Your task to perform on an android device: all mails in gmail Image 0: 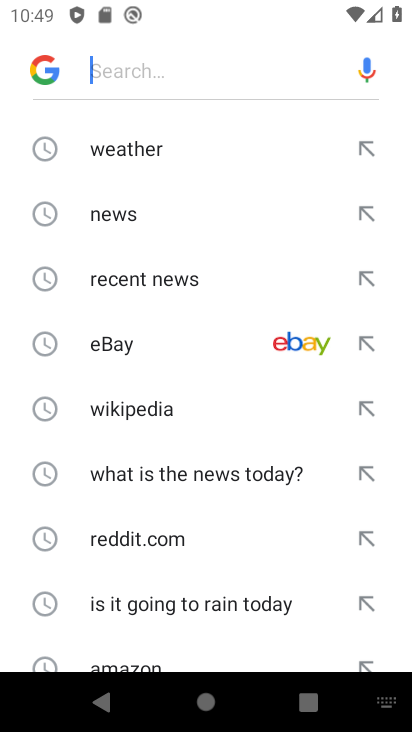
Step 0: press back button
Your task to perform on an android device: all mails in gmail Image 1: 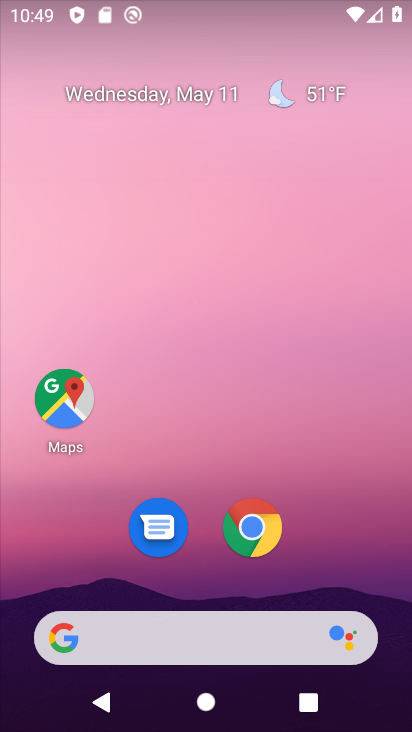
Step 1: drag from (339, 533) to (273, 39)
Your task to perform on an android device: all mails in gmail Image 2: 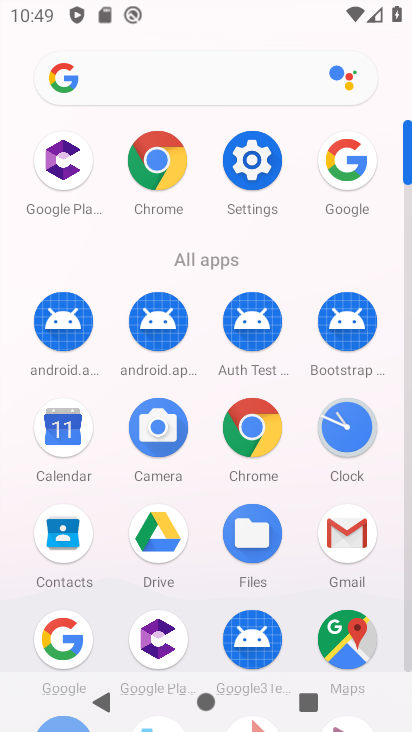
Step 2: click (347, 534)
Your task to perform on an android device: all mails in gmail Image 3: 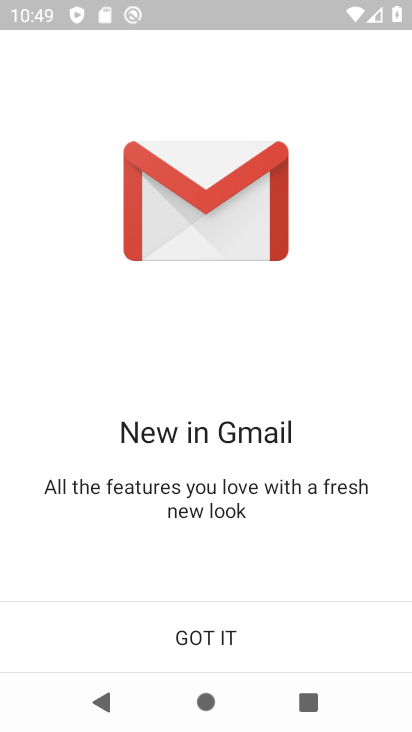
Step 3: click (215, 648)
Your task to perform on an android device: all mails in gmail Image 4: 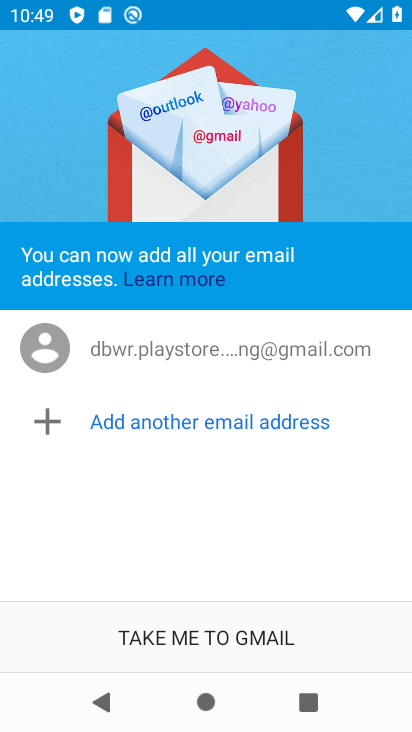
Step 4: click (215, 648)
Your task to perform on an android device: all mails in gmail Image 5: 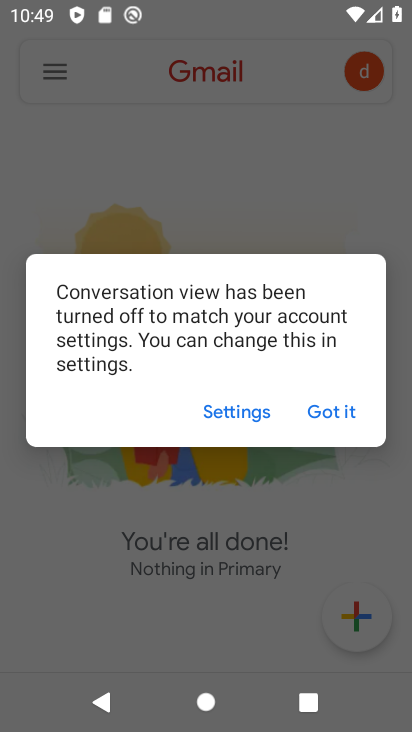
Step 5: click (314, 417)
Your task to perform on an android device: all mails in gmail Image 6: 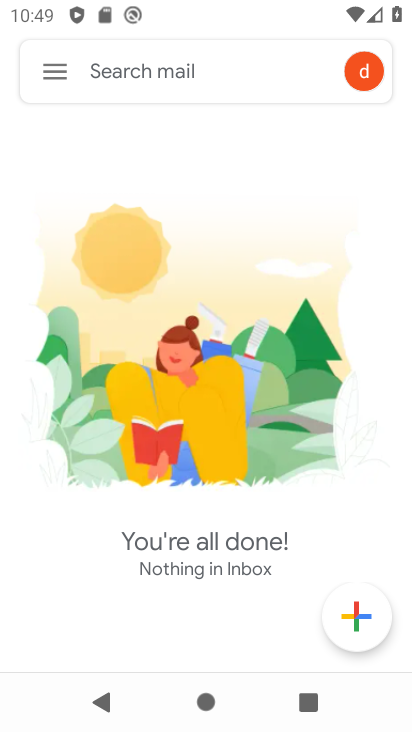
Step 6: click (48, 78)
Your task to perform on an android device: all mails in gmail Image 7: 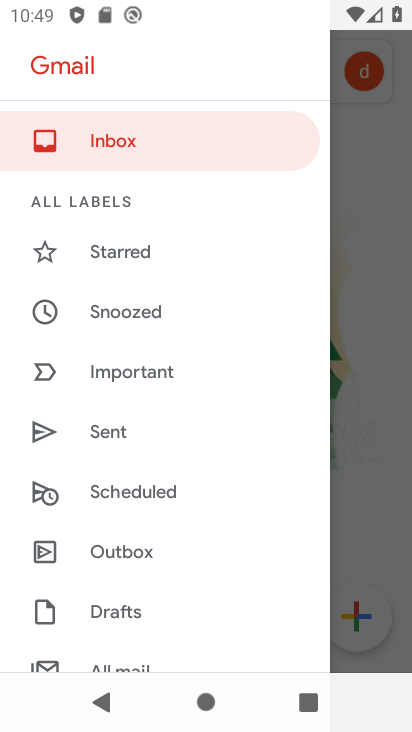
Step 7: drag from (173, 530) to (181, 388)
Your task to perform on an android device: all mails in gmail Image 8: 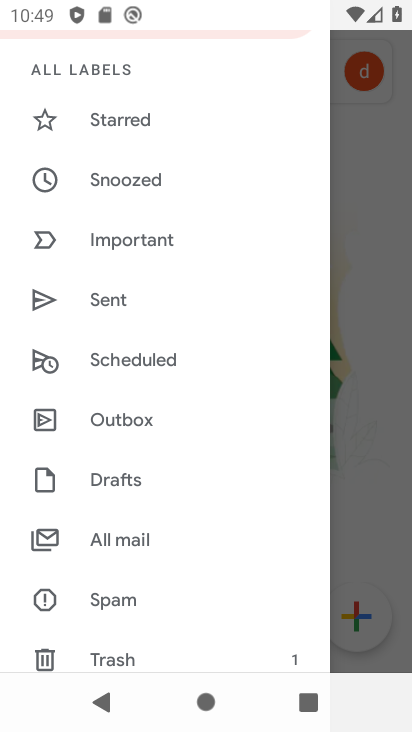
Step 8: click (145, 535)
Your task to perform on an android device: all mails in gmail Image 9: 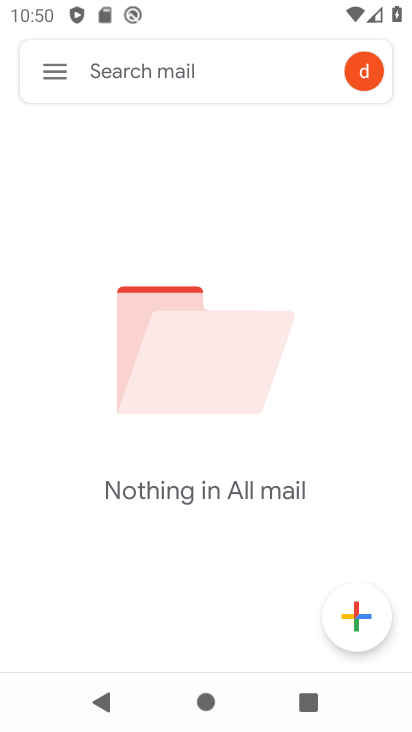
Step 9: task complete